Your task to perform on an android device: change alarm snooze length Image 0: 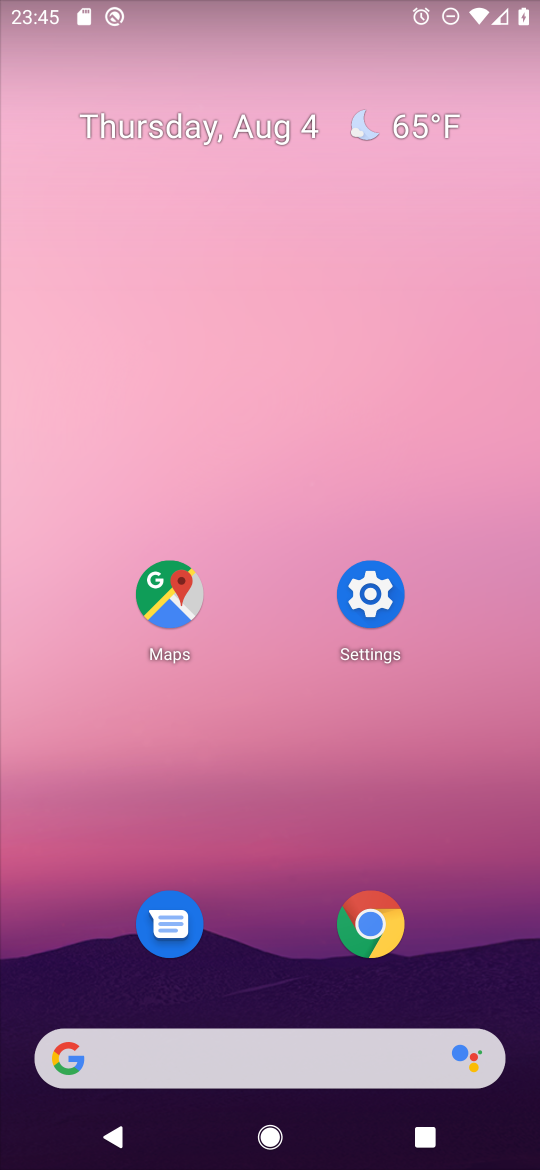
Step 0: drag from (296, 1003) to (497, 112)
Your task to perform on an android device: change alarm snooze length Image 1: 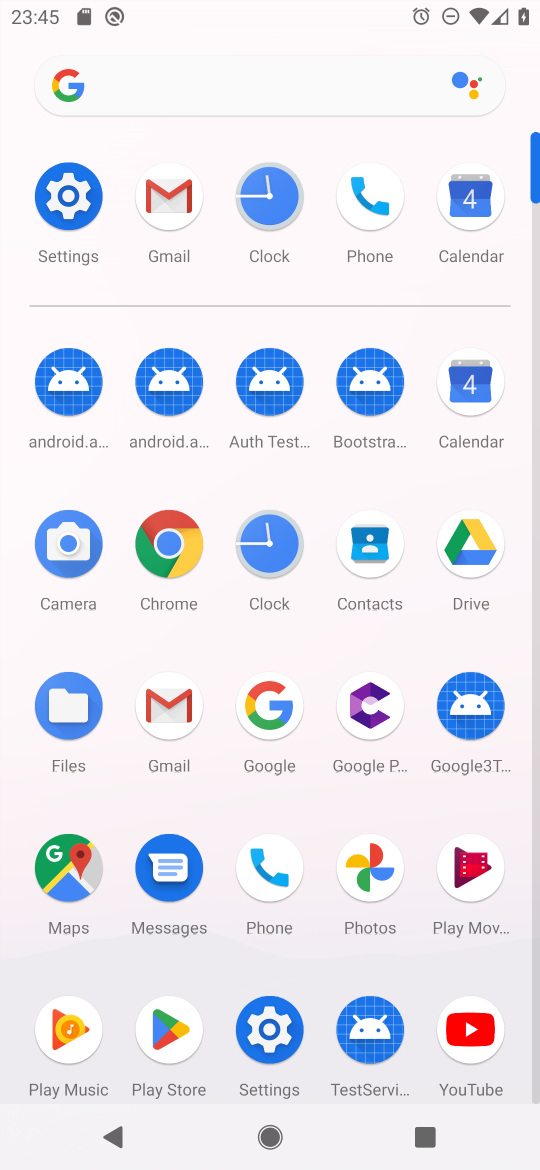
Step 1: click (270, 208)
Your task to perform on an android device: change alarm snooze length Image 2: 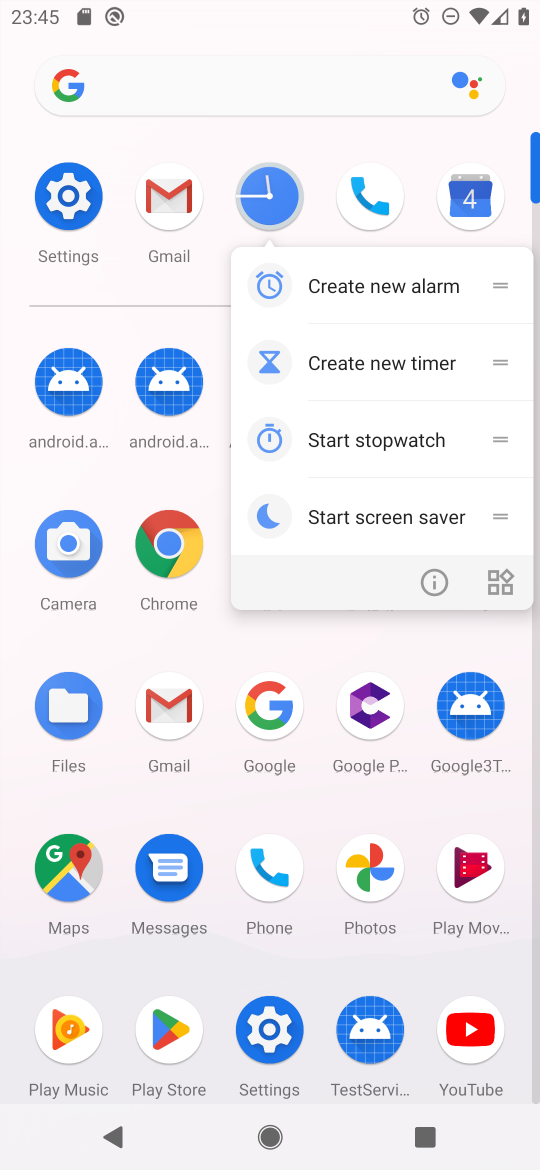
Step 2: click (274, 208)
Your task to perform on an android device: change alarm snooze length Image 3: 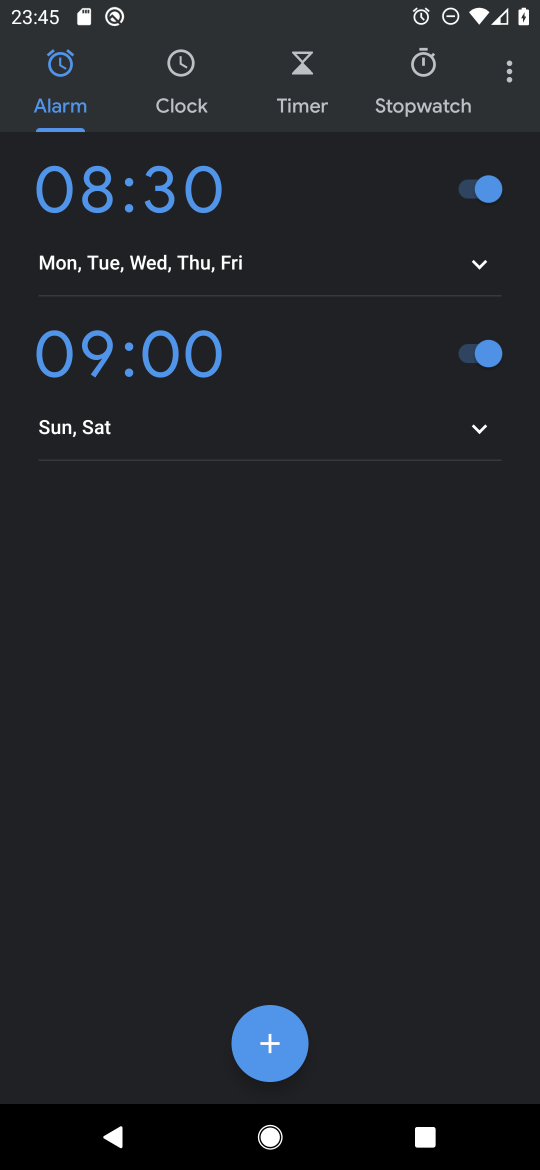
Step 3: click (511, 75)
Your task to perform on an android device: change alarm snooze length Image 4: 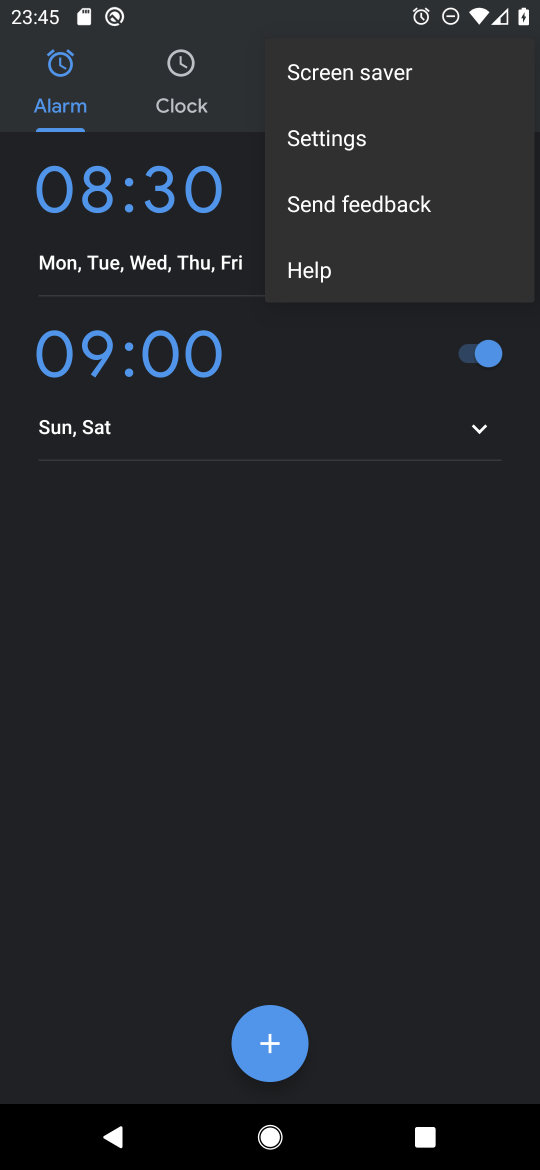
Step 4: click (329, 141)
Your task to perform on an android device: change alarm snooze length Image 5: 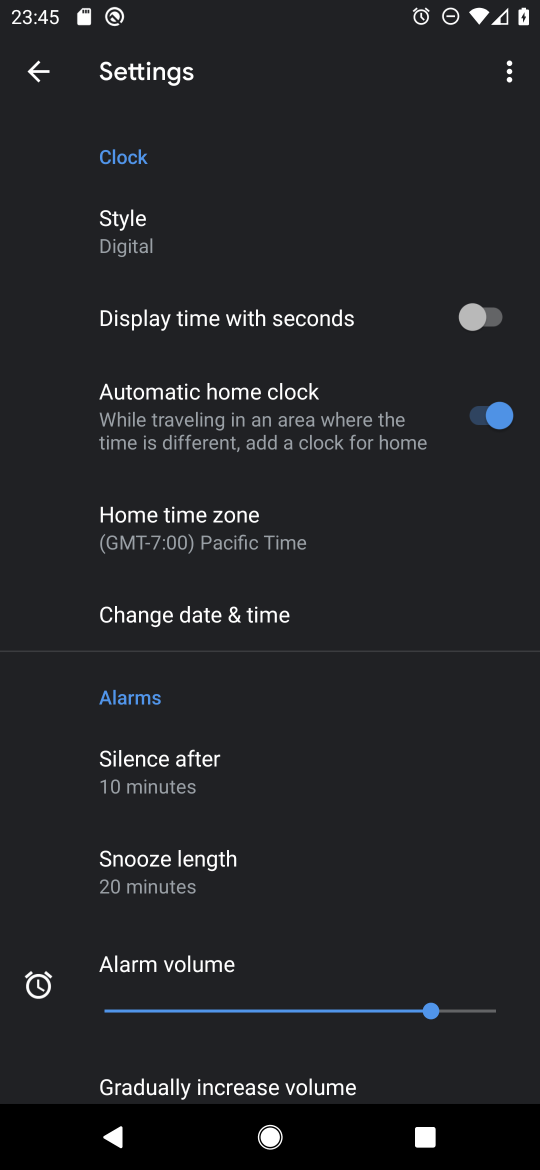
Step 5: click (194, 888)
Your task to perform on an android device: change alarm snooze length Image 6: 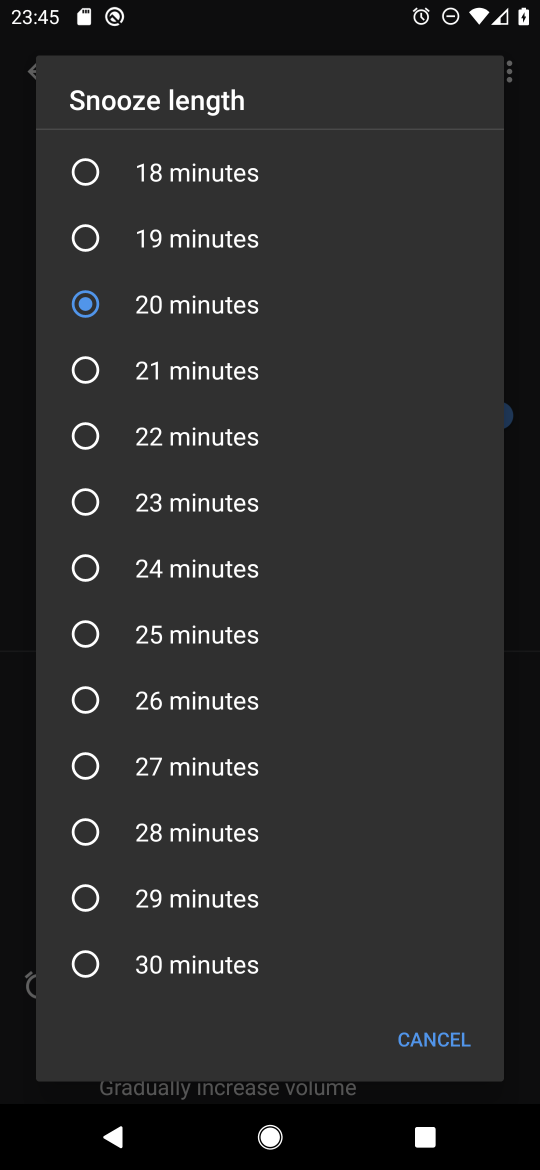
Step 6: click (92, 180)
Your task to perform on an android device: change alarm snooze length Image 7: 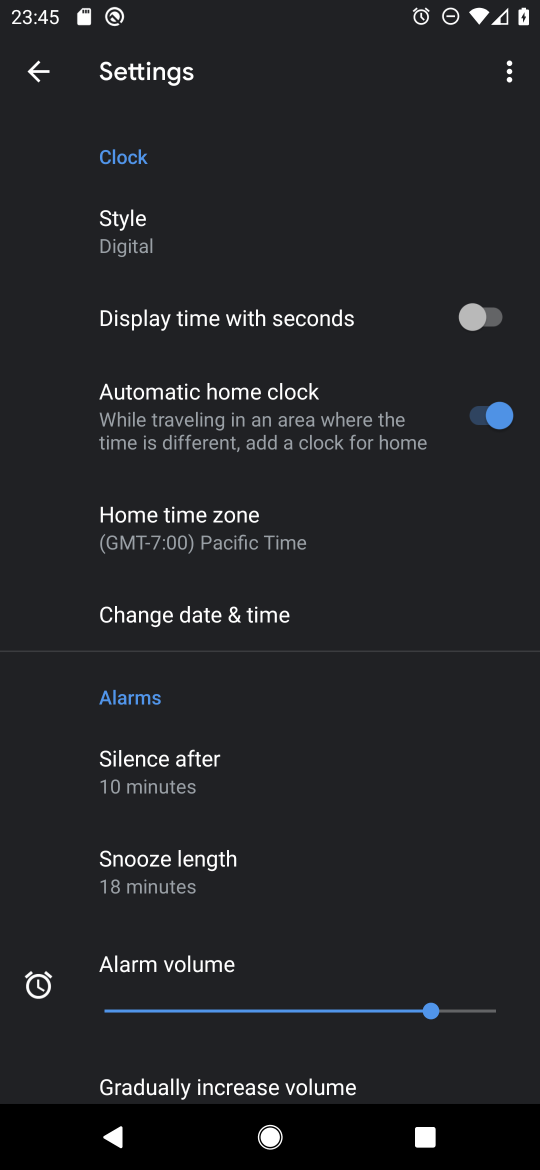
Step 7: task complete